Your task to perform on an android device: Open calendar and show me the fourth week of next month Image 0: 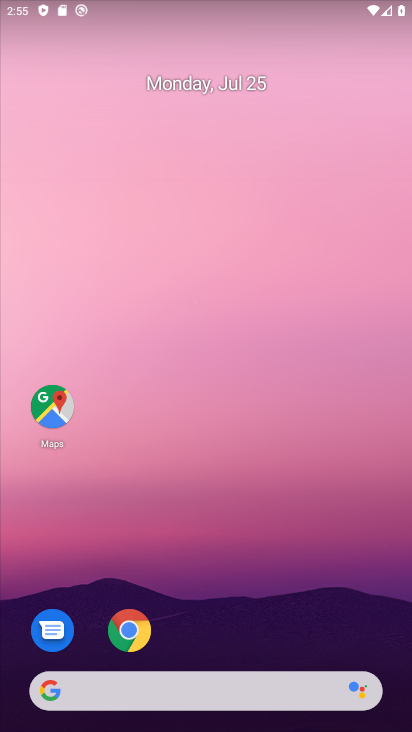
Step 0: click (190, 0)
Your task to perform on an android device: Open calendar and show me the fourth week of next month Image 1: 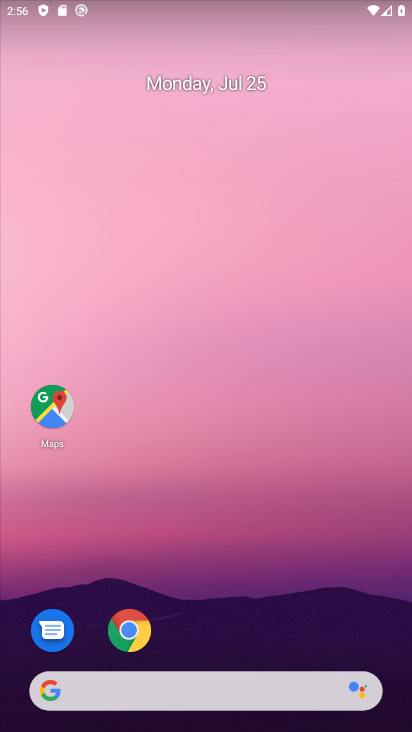
Step 1: click (250, 171)
Your task to perform on an android device: Open calendar and show me the fourth week of next month Image 2: 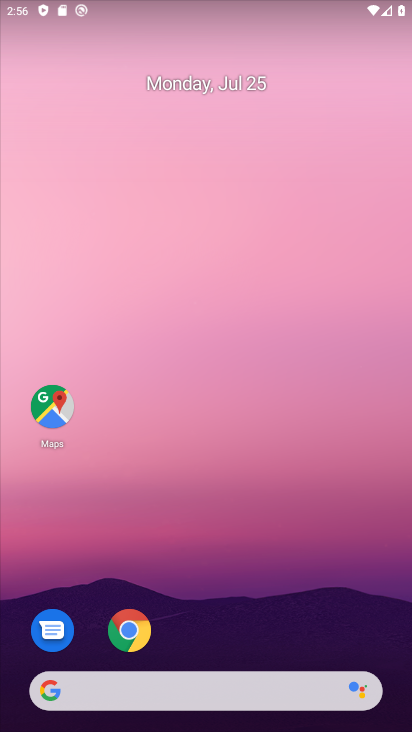
Step 2: drag from (274, 160) to (231, 125)
Your task to perform on an android device: Open calendar and show me the fourth week of next month Image 3: 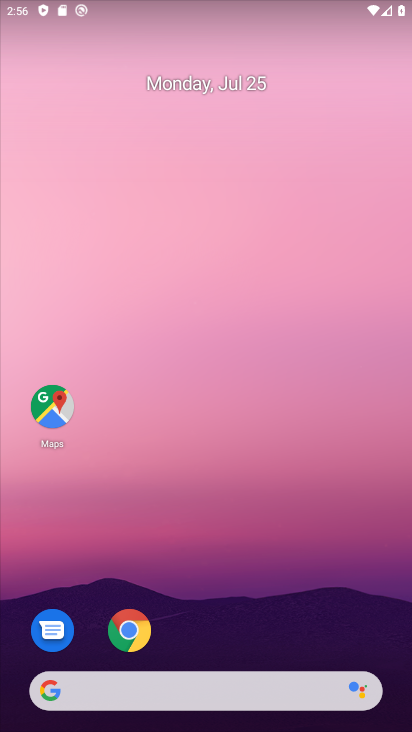
Step 3: drag from (211, 563) to (290, 251)
Your task to perform on an android device: Open calendar and show me the fourth week of next month Image 4: 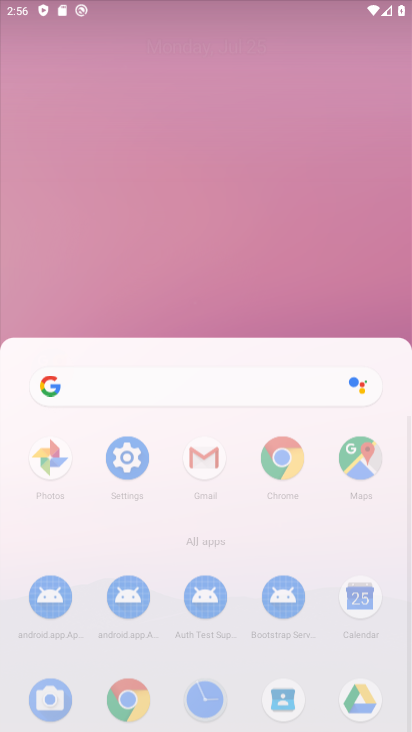
Step 4: drag from (263, 539) to (206, 104)
Your task to perform on an android device: Open calendar and show me the fourth week of next month Image 5: 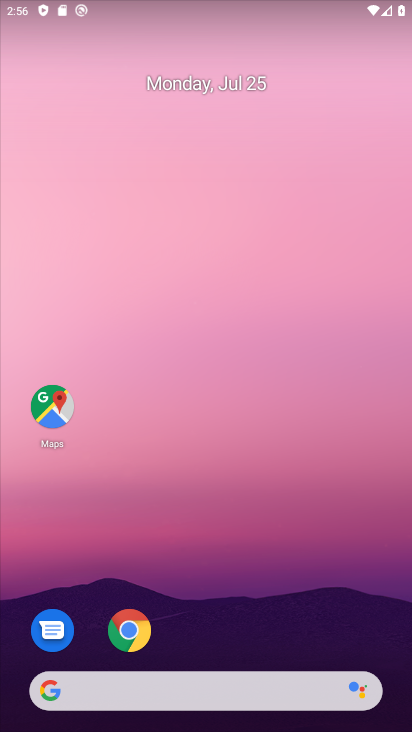
Step 5: drag from (163, 245) to (163, 124)
Your task to perform on an android device: Open calendar and show me the fourth week of next month Image 6: 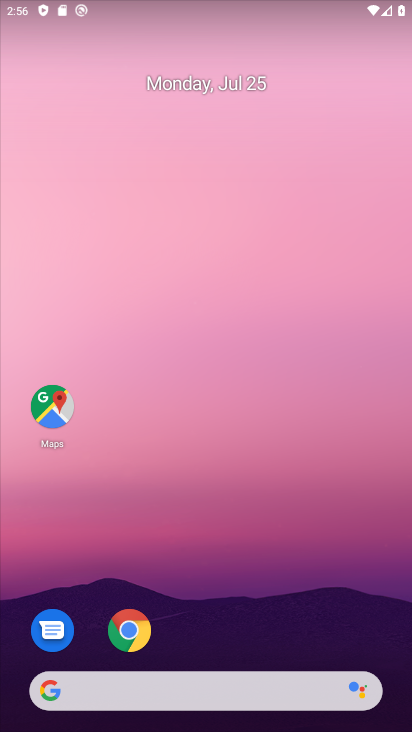
Step 6: click (272, 175)
Your task to perform on an android device: Open calendar and show me the fourth week of next month Image 7: 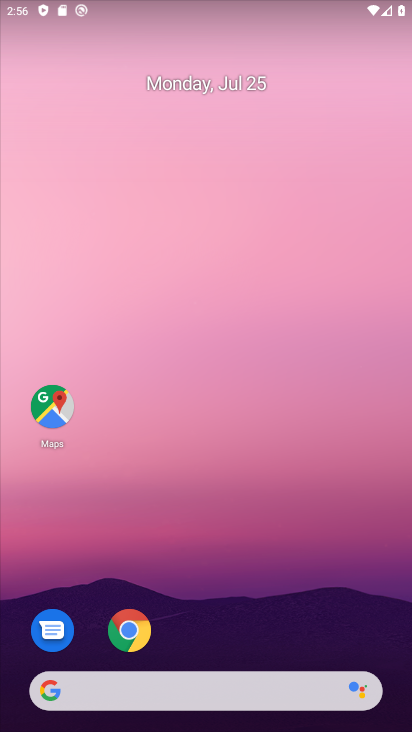
Step 7: click (283, 141)
Your task to perform on an android device: Open calendar and show me the fourth week of next month Image 8: 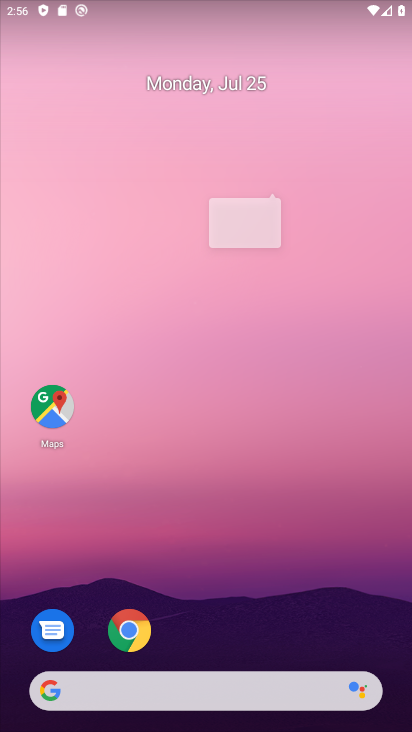
Step 8: drag from (311, 429) to (365, 50)
Your task to perform on an android device: Open calendar and show me the fourth week of next month Image 9: 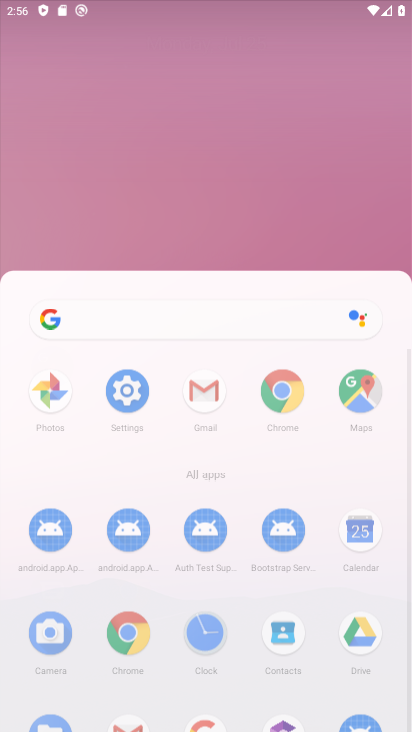
Step 9: drag from (259, 587) to (271, 147)
Your task to perform on an android device: Open calendar and show me the fourth week of next month Image 10: 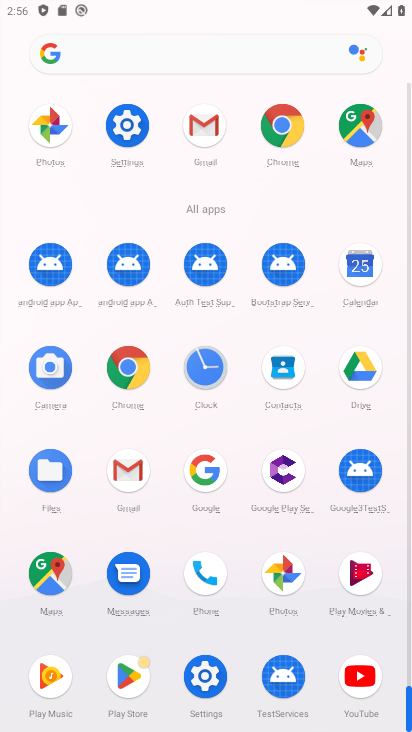
Step 10: drag from (287, 443) to (279, 240)
Your task to perform on an android device: Open calendar and show me the fourth week of next month Image 11: 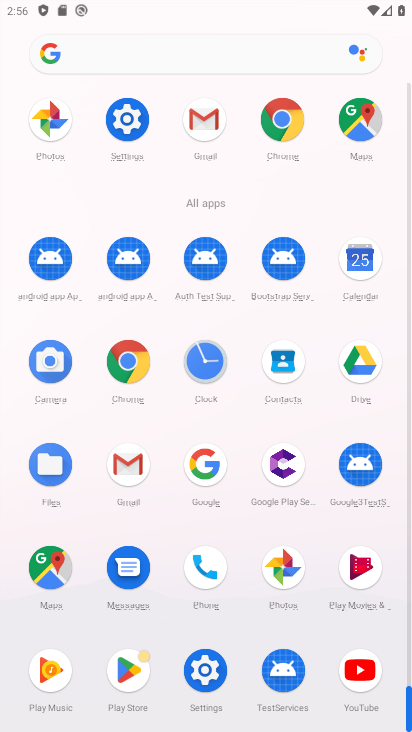
Step 11: click (362, 251)
Your task to perform on an android device: Open calendar and show me the fourth week of next month Image 12: 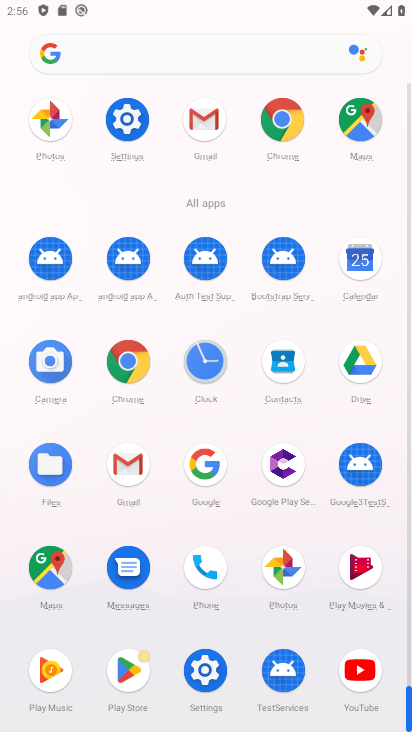
Step 12: click (361, 250)
Your task to perform on an android device: Open calendar and show me the fourth week of next month Image 13: 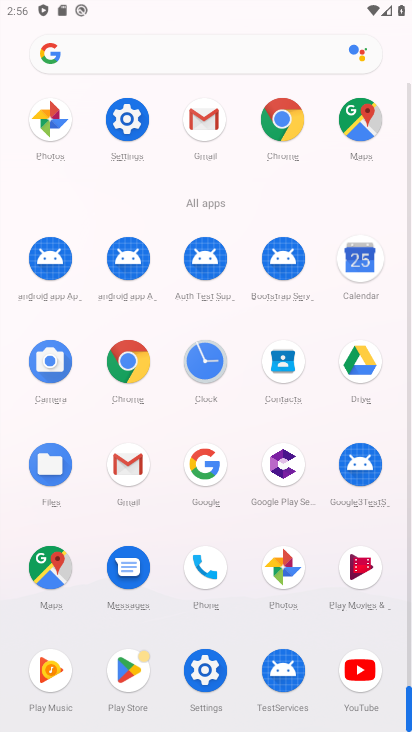
Step 13: click (362, 258)
Your task to perform on an android device: Open calendar and show me the fourth week of next month Image 14: 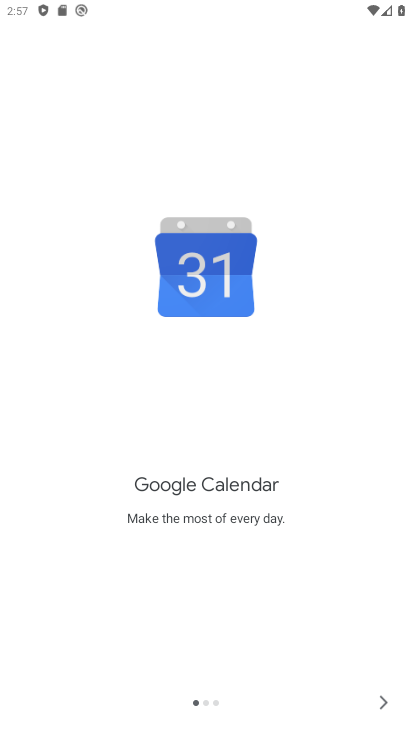
Step 14: click (376, 698)
Your task to perform on an android device: Open calendar and show me the fourth week of next month Image 15: 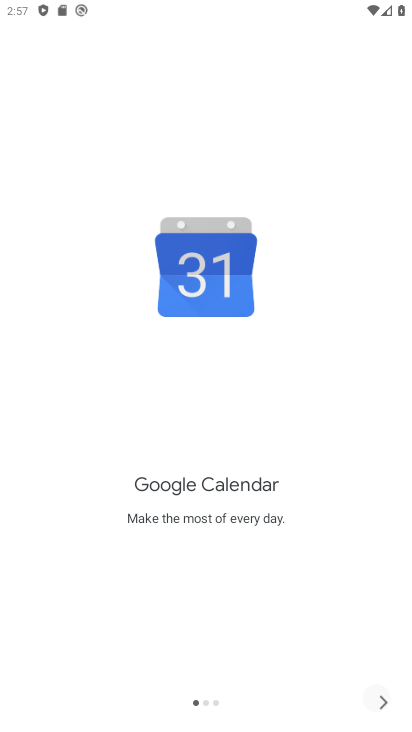
Step 15: click (380, 704)
Your task to perform on an android device: Open calendar and show me the fourth week of next month Image 16: 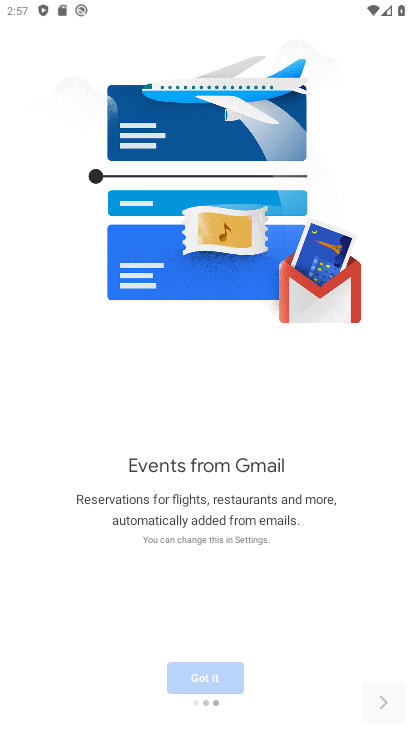
Step 16: click (389, 709)
Your task to perform on an android device: Open calendar and show me the fourth week of next month Image 17: 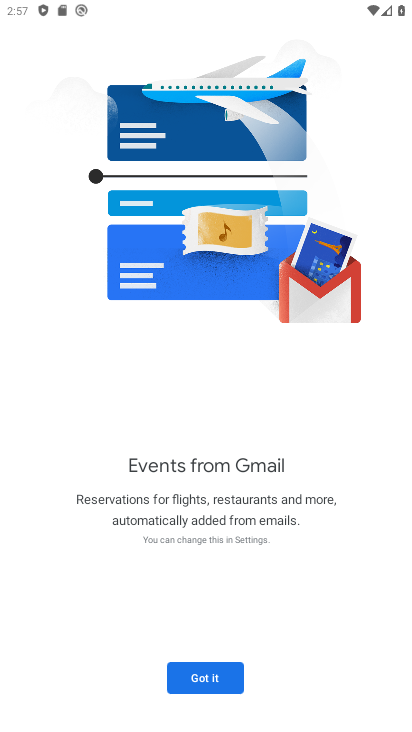
Step 17: click (390, 709)
Your task to perform on an android device: Open calendar and show me the fourth week of next month Image 18: 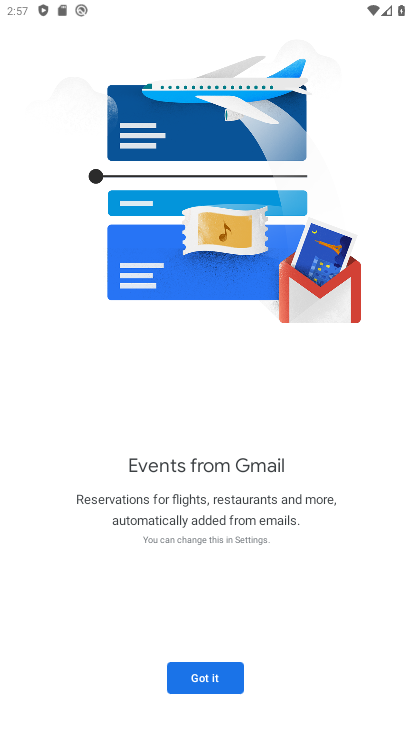
Step 18: click (391, 709)
Your task to perform on an android device: Open calendar and show me the fourth week of next month Image 19: 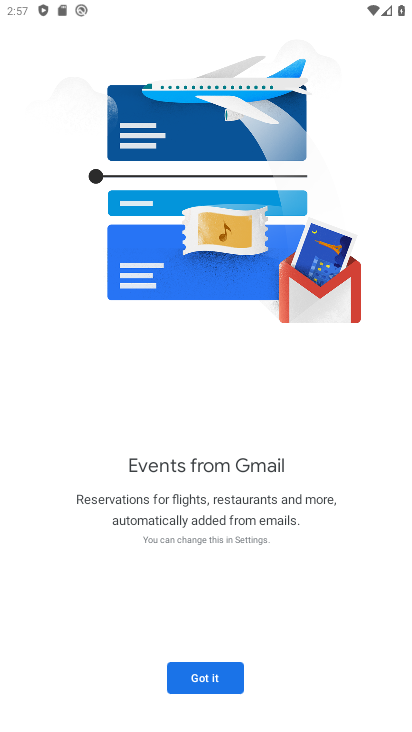
Step 19: click (391, 709)
Your task to perform on an android device: Open calendar and show me the fourth week of next month Image 20: 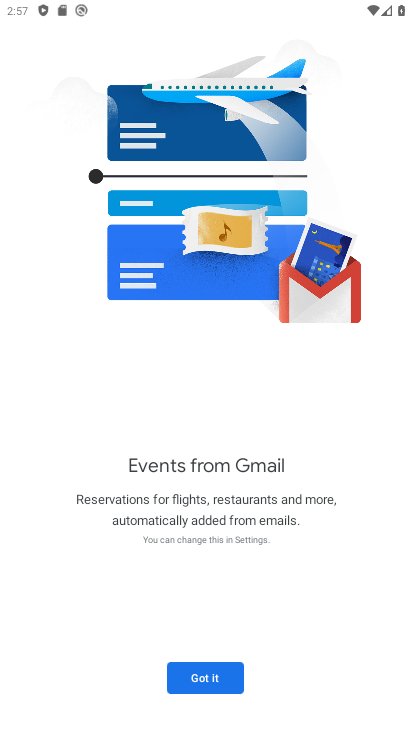
Step 20: click (194, 669)
Your task to perform on an android device: Open calendar and show me the fourth week of next month Image 21: 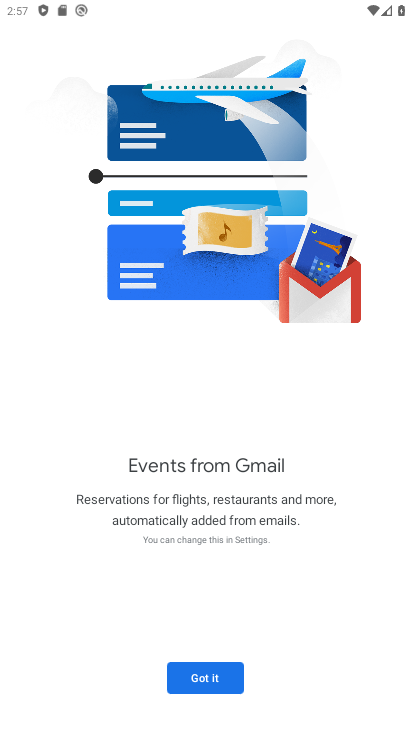
Step 21: click (194, 665)
Your task to perform on an android device: Open calendar and show me the fourth week of next month Image 22: 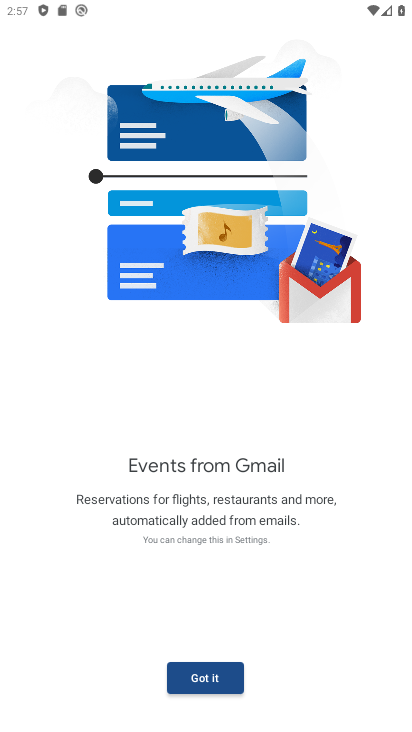
Step 22: click (243, 672)
Your task to perform on an android device: Open calendar and show me the fourth week of next month Image 23: 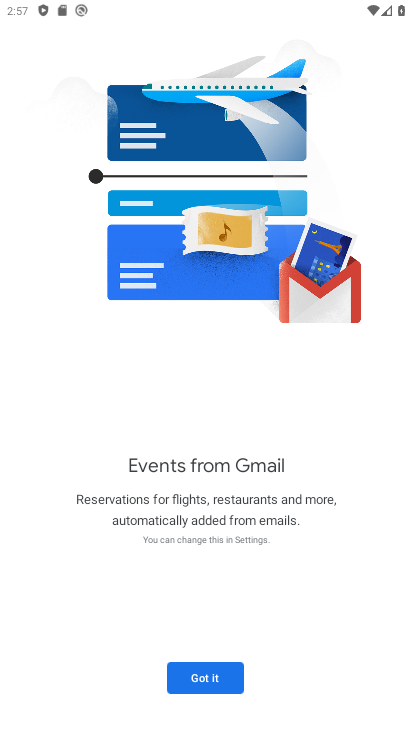
Step 23: click (248, 670)
Your task to perform on an android device: Open calendar and show me the fourth week of next month Image 24: 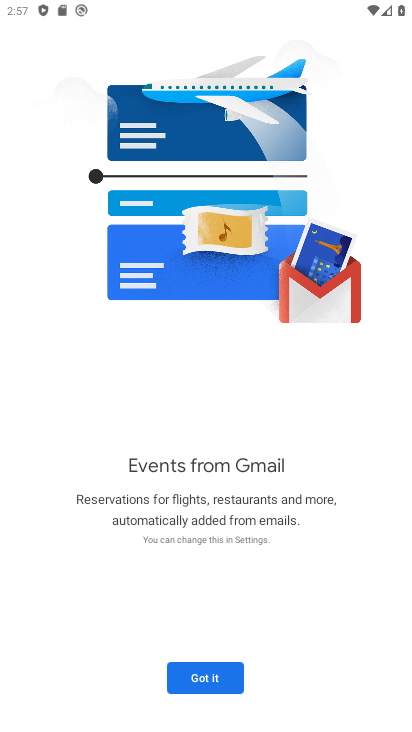
Step 24: click (243, 667)
Your task to perform on an android device: Open calendar and show me the fourth week of next month Image 25: 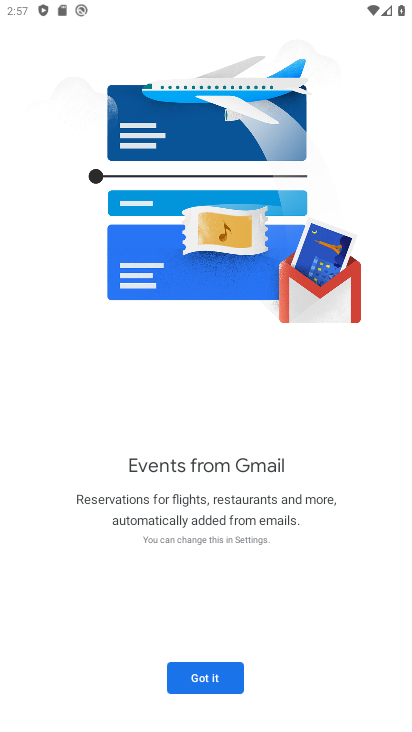
Step 25: click (242, 672)
Your task to perform on an android device: Open calendar and show me the fourth week of next month Image 26: 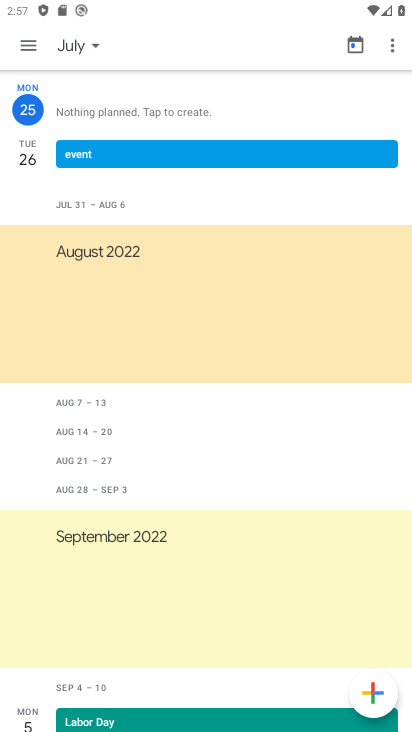
Step 26: click (94, 47)
Your task to perform on an android device: Open calendar and show me the fourth week of next month Image 27: 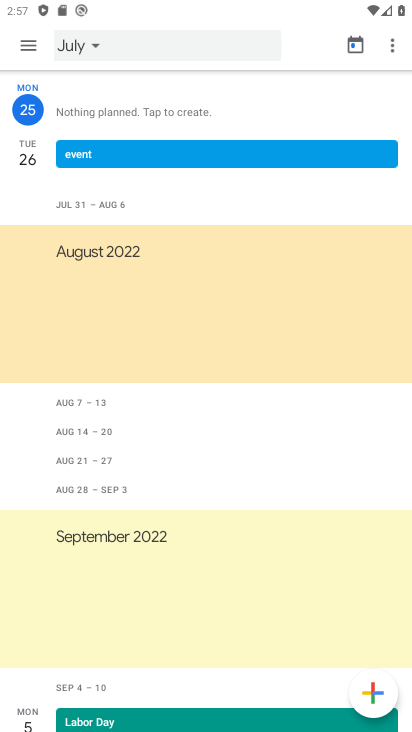
Step 27: click (96, 49)
Your task to perform on an android device: Open calendar and show me the fourth week of next month Image 28: 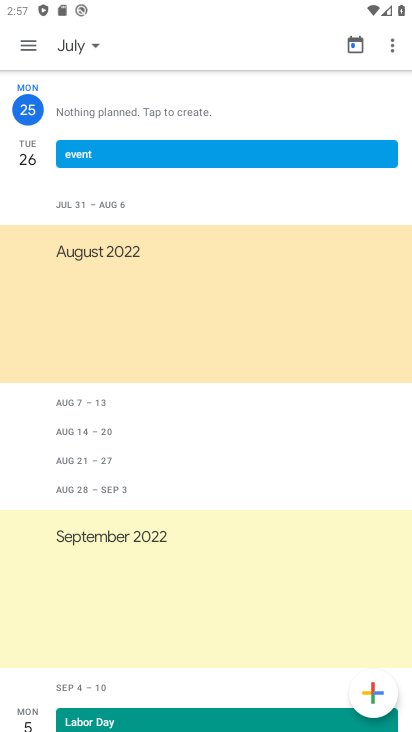
Step 28: click (93, 39)
Your task to perform on an android device: Open calendar and show me the fourth week of next month Image 29: 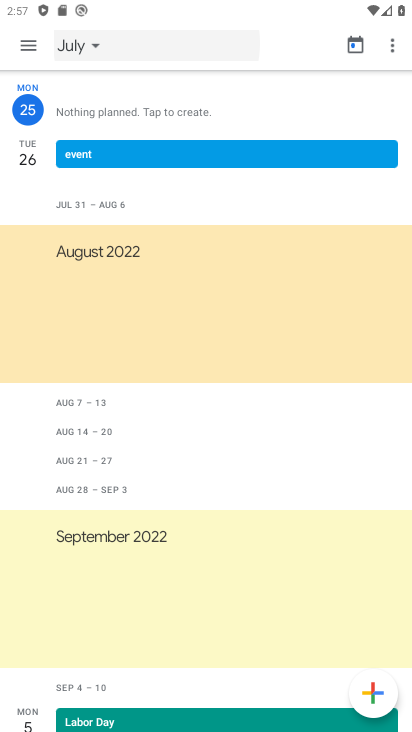
Step 29: click (93, 39)
Your task to perform on an android device: Open calendar and show me the fourth week of next month Image 30: 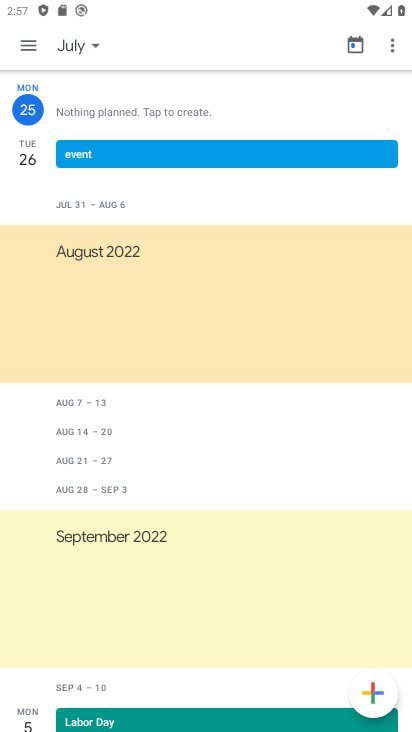
Step 30: click (92, 42)
Your task to perform on an android device: Open calendar and show me the fourth week of next month Image 31: 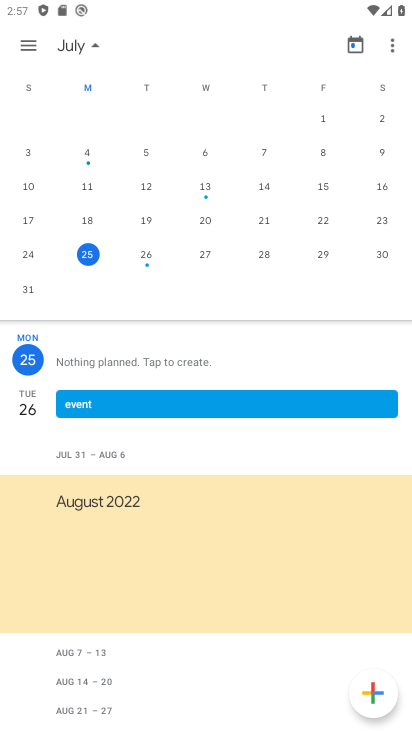
Step 31: drag from (352, 156) to (44, 243)
Your task to perform on an android device: Open calendar and show me the fourth week of next month Image 32: 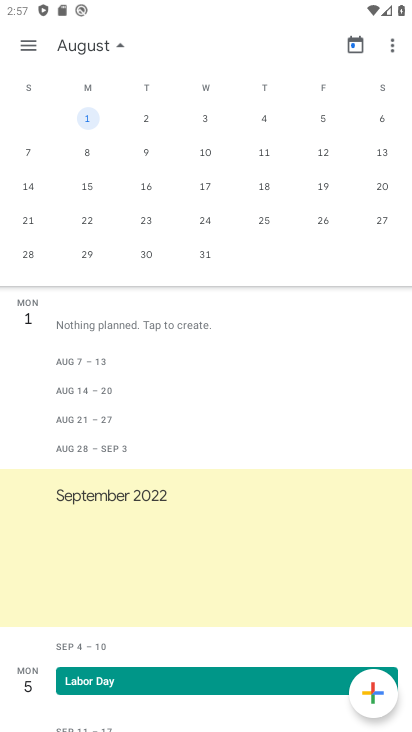
Step 32: click (143, 222)
Your task to perform on an android device: Open calendar and show me the fourth week of next month Image 33: 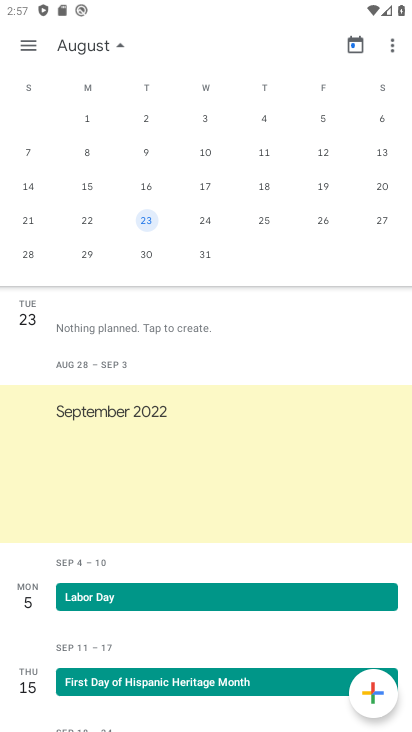
Step 33: click (143, 223)
Your task to perform on an android device: Open calendar and show me the fourth week of next month Image 34: 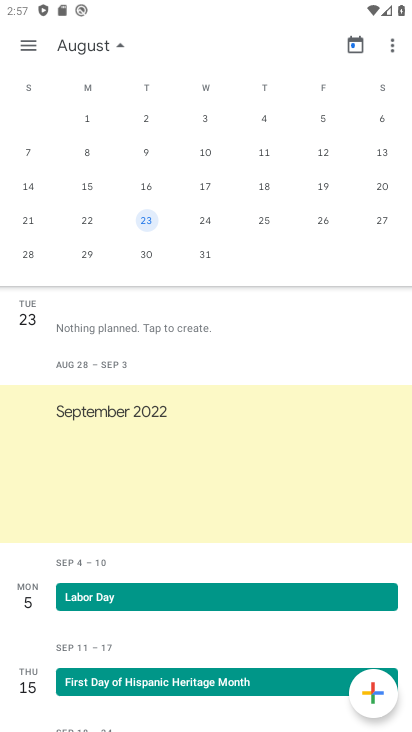
Step 34: click (143, 223)
Your task to perform on an android device: Open calendar and show me the fourth week of next month Image 35: 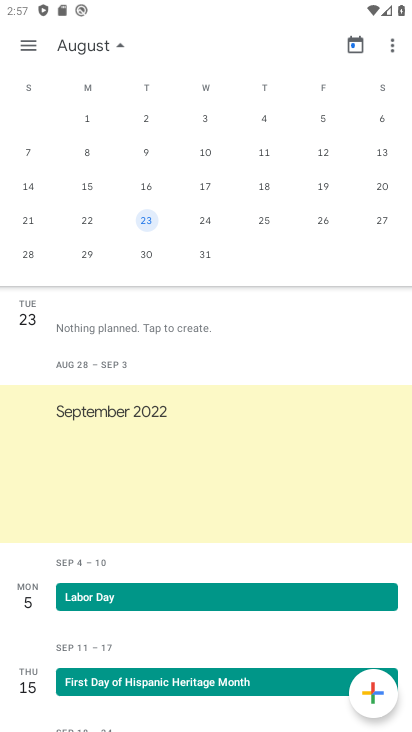
Step 35: task complete